Your task to perform on an android device: Open Wikipedia Image 0: 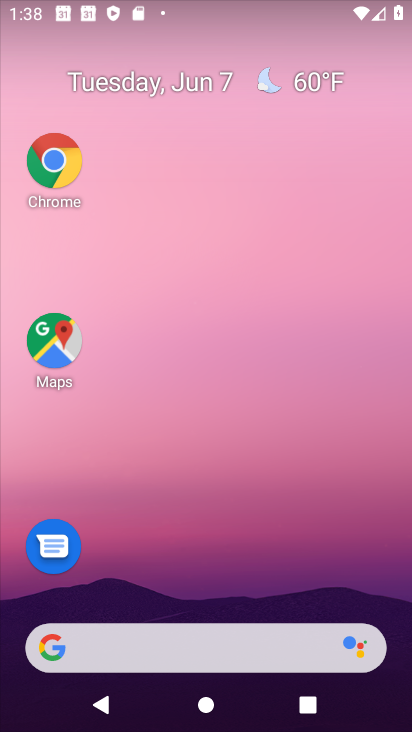
Step 0: drag from (194, 606) to (276, 149)
Your task to perform on an android device: Open Wikipedia Image 1: 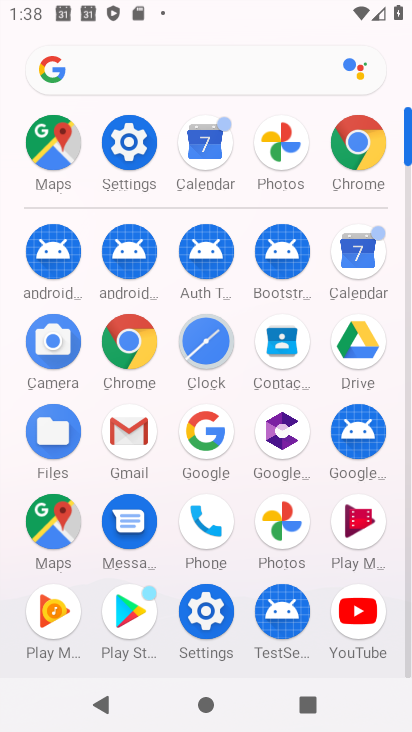
Step 1: click (129, 129)
Your task to perform on an android device: Open Wikipedia Image 2: 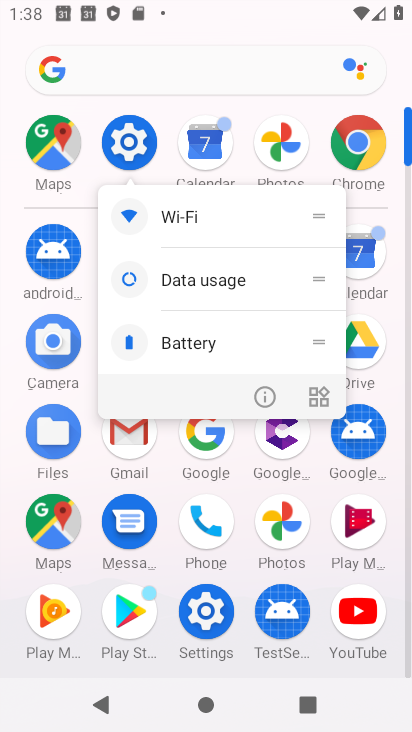
Step 2: click (183, 79)
Your task to perform on an android device: Open Wikipedia Image 3: 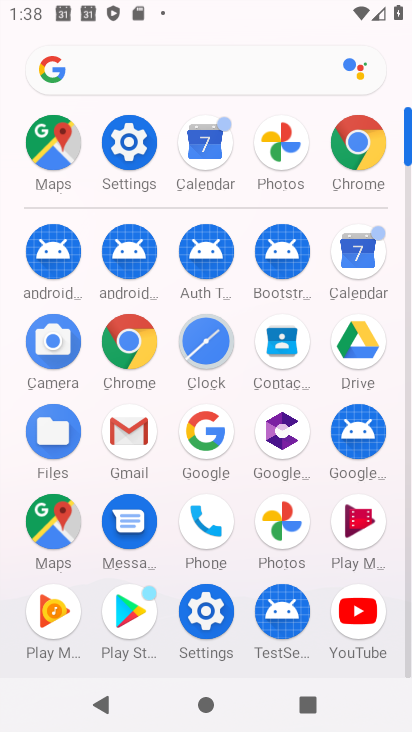
Step 3: click (144, 70)
Your task to perform on an android device: Open Wikipedia Image 4: 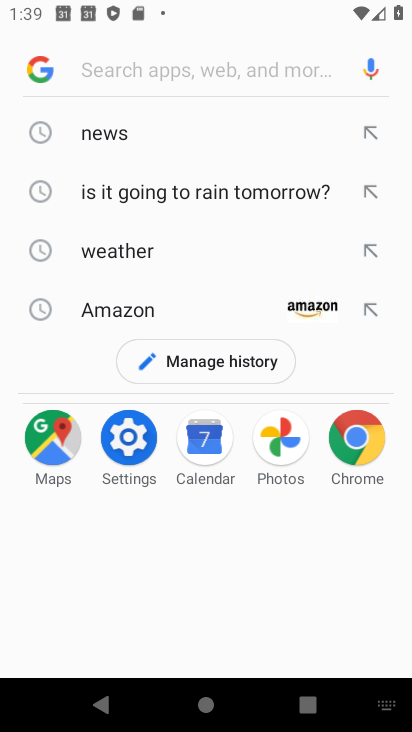
Step 4: type "Wikipedia"
Your task to perform on an android device: Open Wikipedia Image 5: 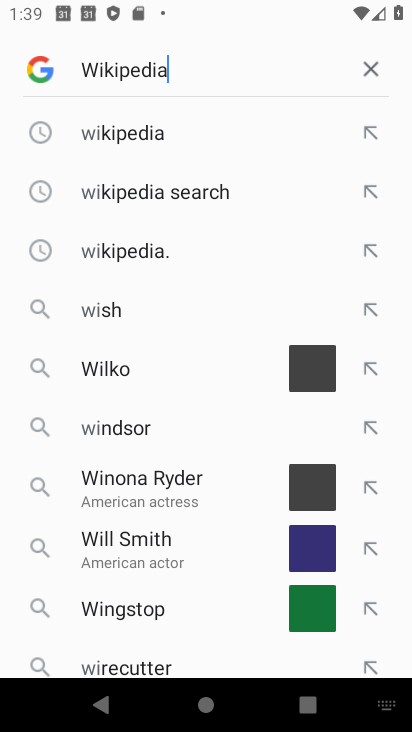
Step 5: type ""
Your task to perform on an android device: Open Wikipedia Image 6: 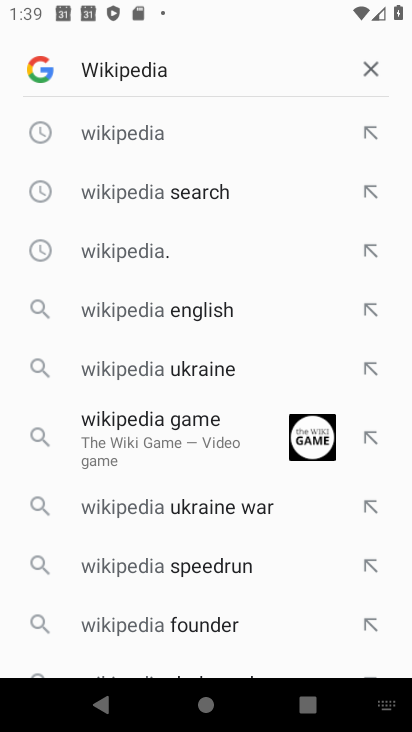
Step 6: click (138, 152)
Your task to perform on an android device: Open Wikipedia Image 7: 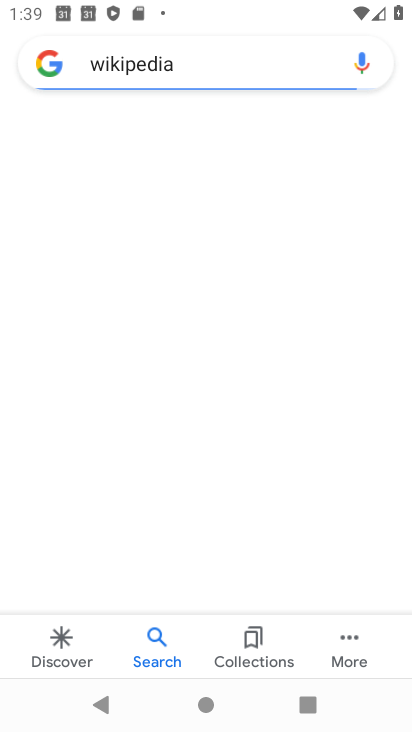
Step 7: drag from (232, 435) to (244, 176)
Your task to perform on an android device: Open Wikipedia Image 8: 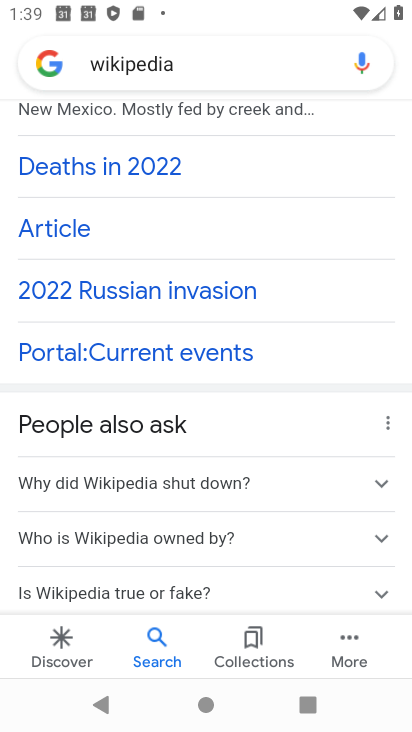
Step 8: drag from (193, 206) to (302, 730)
Your task to perform on an android device: Open Wikipedia Image 9: 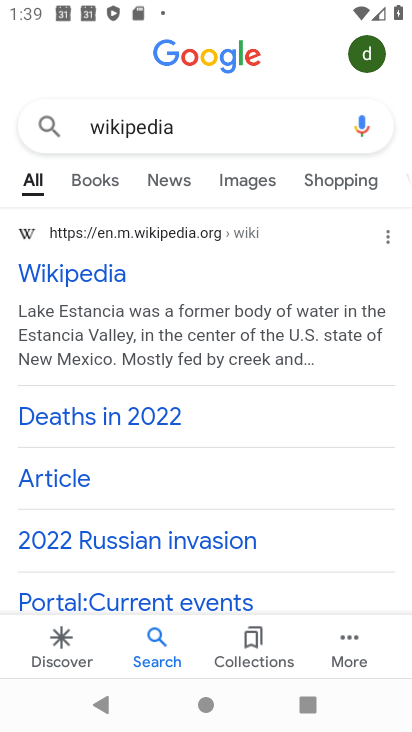
Step 9: click (60, 268)
Your task to perform on an android device: Open Wikipedia Image 10: 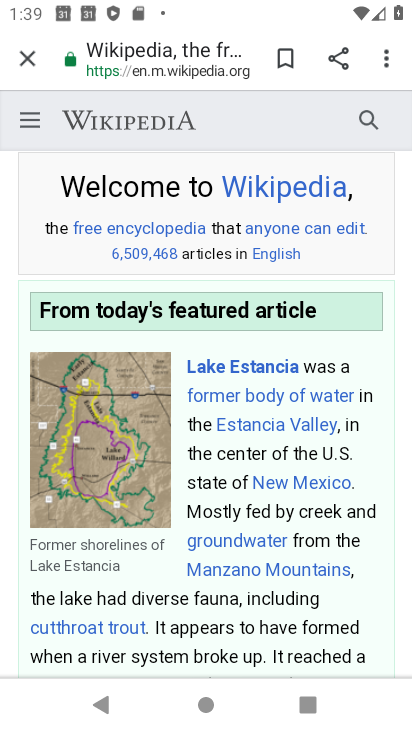
Step 10: task complete